Your task to perform on an android device: change the clock style Image 0: 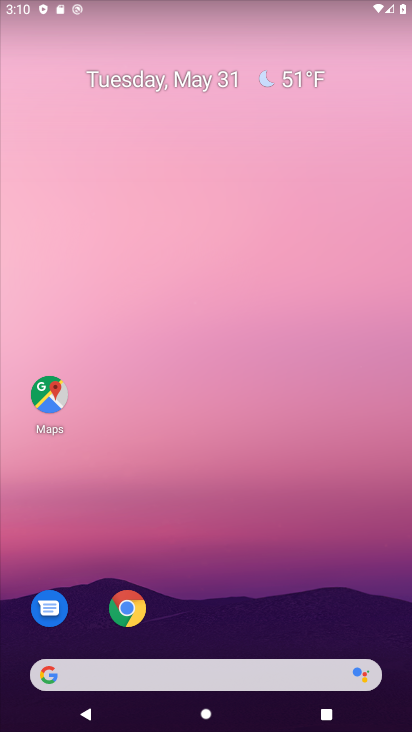
Step 0: drag from (224, 591) to (230, 101)
Your task to perform on an android device: change the clock style Image 1: 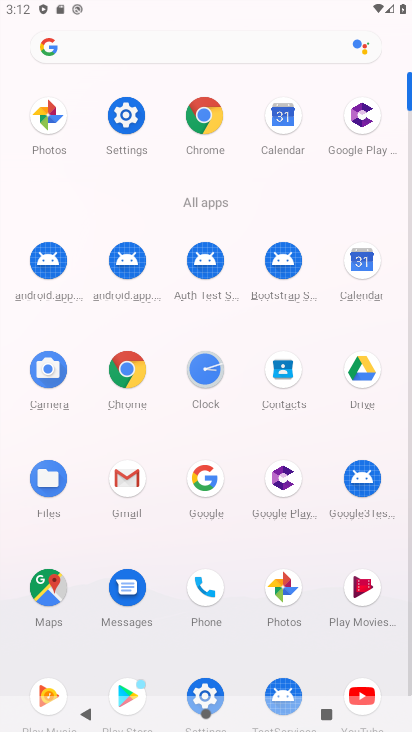
Step 1: click (188, 383)
Your task to perform on an android device: change the clock style Image 2: 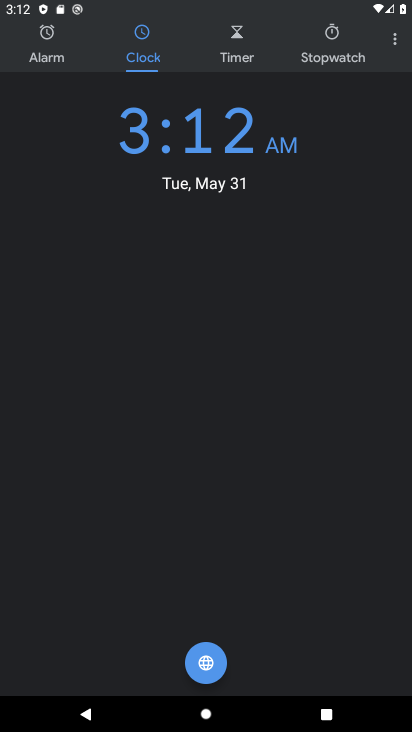
Step 2: click (394, 35)
Your task to perform on an android device: change the clock style Image 3: 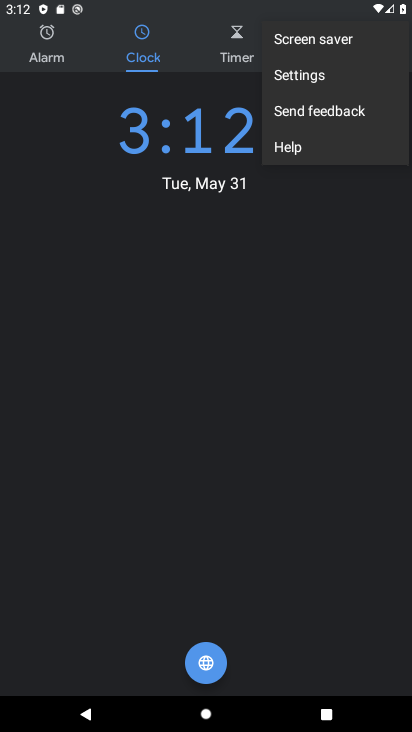
Step 3: click (315, 79)
Your task to perform on an android device: change the clock style Image 4: 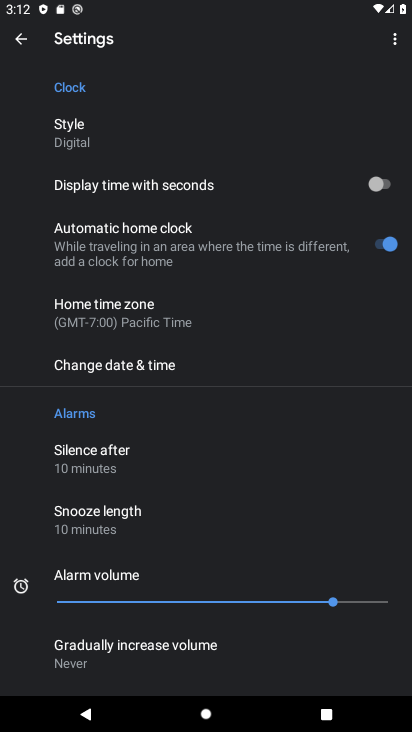
Step 4: click (75, 142)
Your task to perform on an android device: change the clock style Image 5: 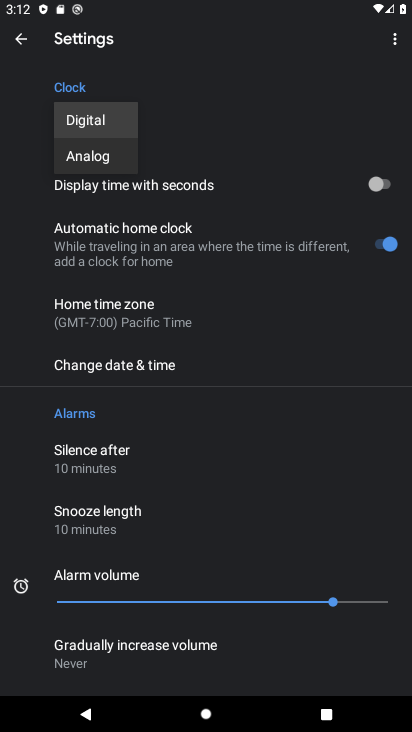
Step 5: click (88, 158)
Your task to perform on an android device: change the clock style Image 6: 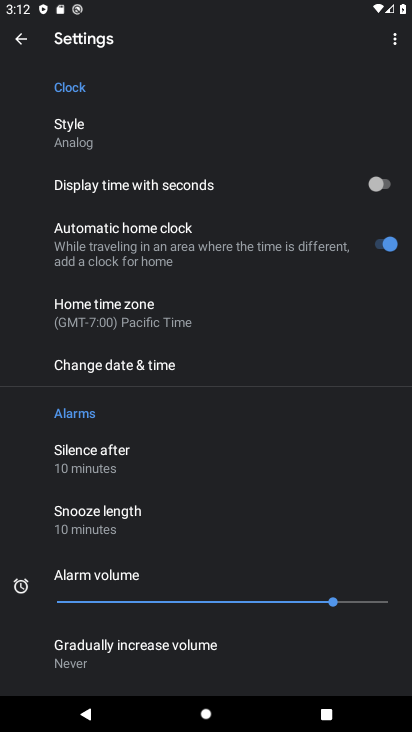
Step 6: task complete